Your task to perform on an android device: Is it going to rain tomorrow? Image 0: 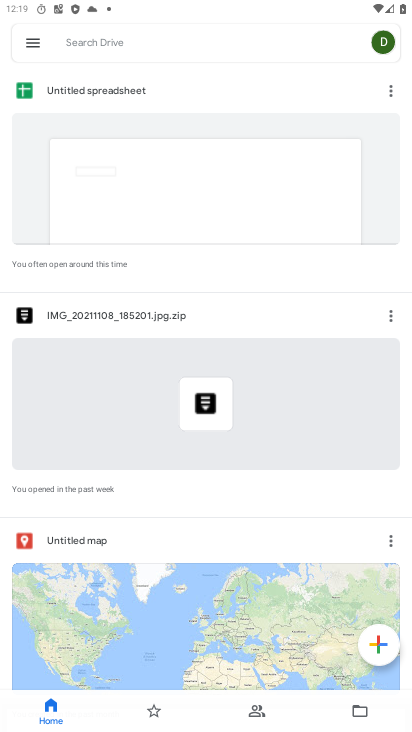
Step 0: press home button
Your task to perform on an android device: Is it going to rain tomorrow? Image 1: 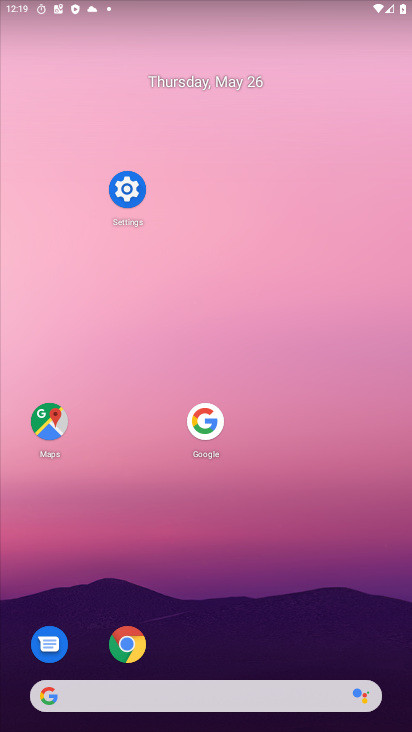
Step 1: click (207, 416)
Your task to perform on an android device: Is it going to rain tomorrow? Image 2: 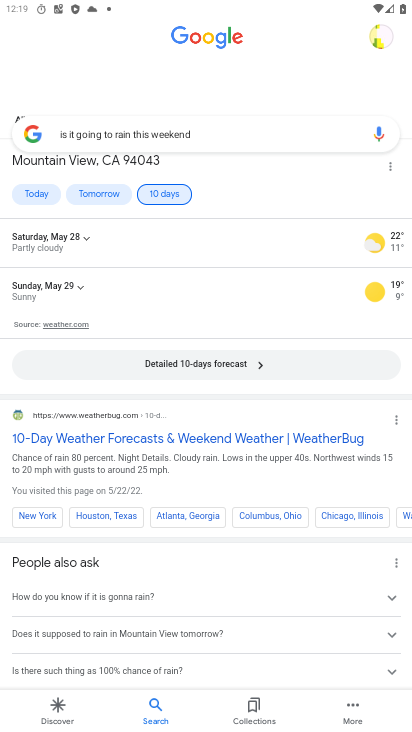
Step 2: click (222, 130)
Your task to perform on an android device: Is it going to rain tomorrow? Image 3: 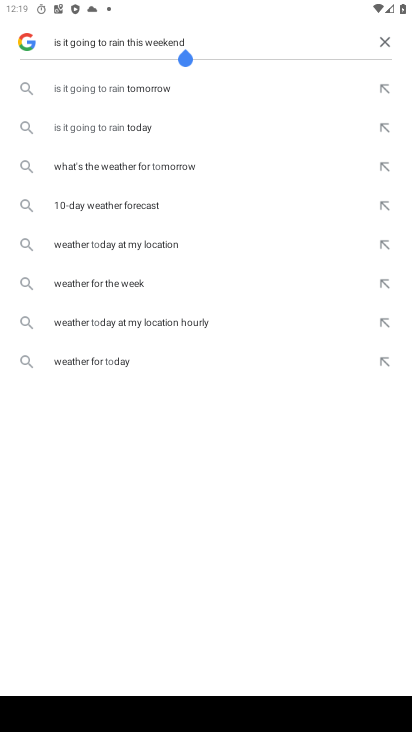
Step 3: drag from (197, 170) to (218, 103)
Your task to perform on an android device: Is it going to rain tomorrow? Image 4: 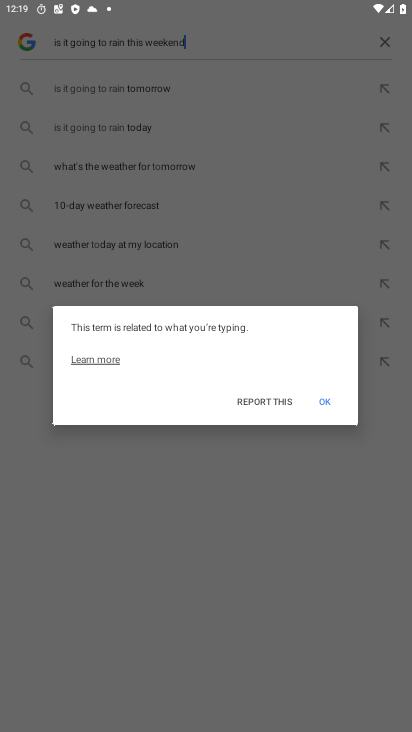
Step 4: click (286, 397)
Your task to perform on an android device: Is it going to rain tomorrow? Image 5: 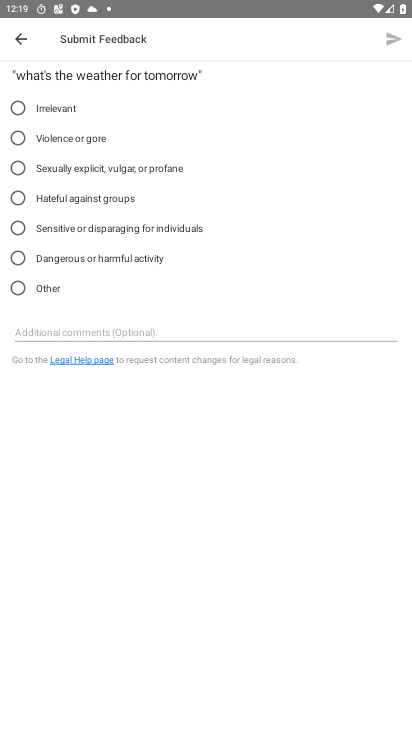
Step 5: press back button
Your task to perform on an android device: Is it going to rain tomorrow? Image 6: 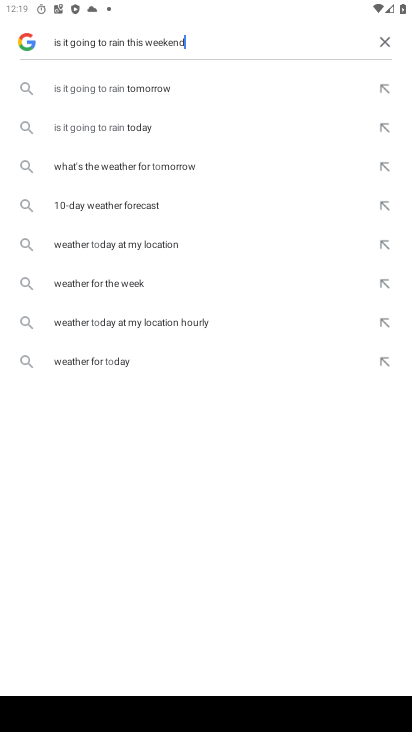
Step 6: click (151, 95)
Your task to perform on an android device: Is it going to rain tomorrow? Image 7: 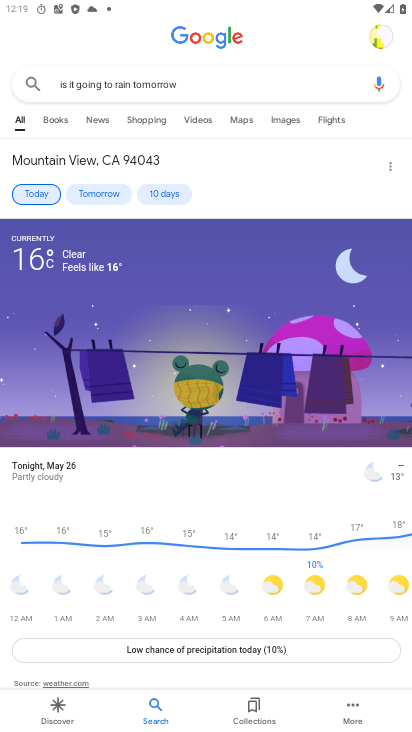
Step 7: click (96, 189)
Your task to perform on an android device: Is it going to rain tomorrow? Image 8: 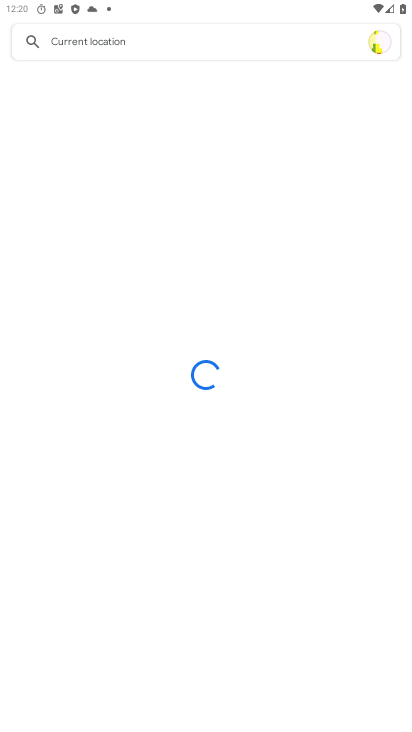
Step 8: task complete